Your task to perform on an android device: Open network settings Image 0: 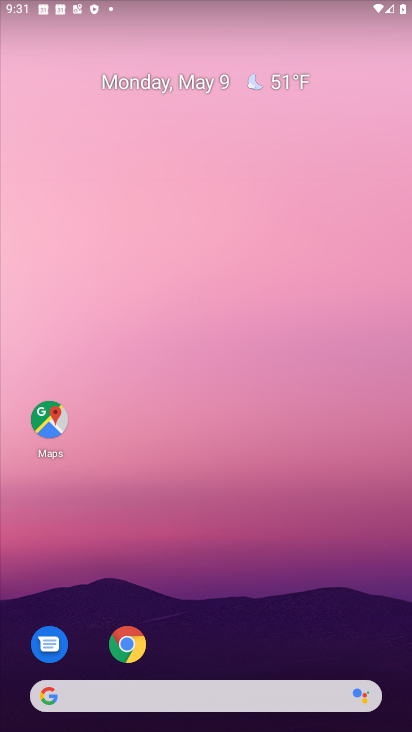
Step 0: drag from (195, 673) to (103, 27)
Your task to perform on an android device: Open network settings Image 1: 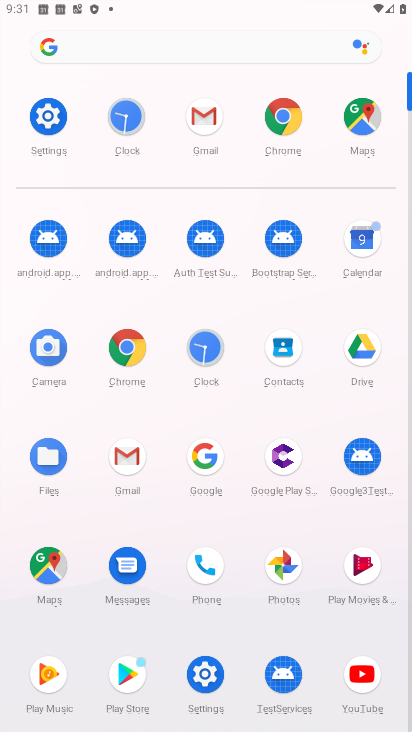
Step 1: click (52, 121)
Your task to perform on an android device: Open network settings Image 2: 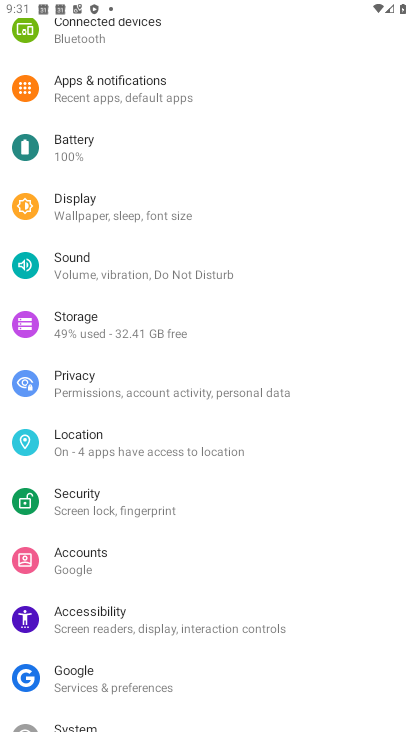
Step 2: drag from (68, 244) to (141, 640)
Your task to perform on an android device: Open network settings Image 3: 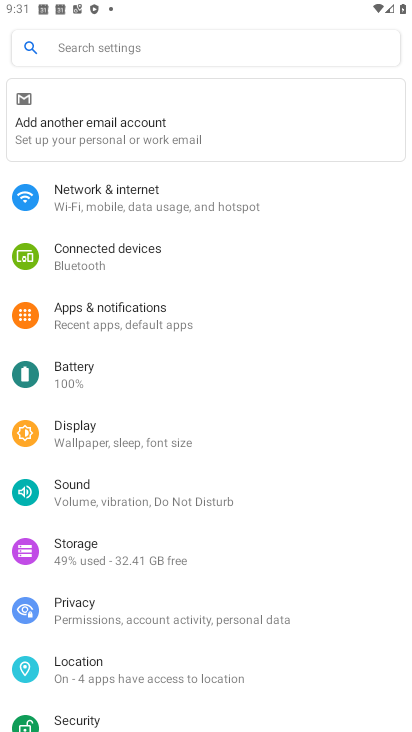
Step 3: click (109, 214)
Your task to perform on an android device: Open network settings Image 4: 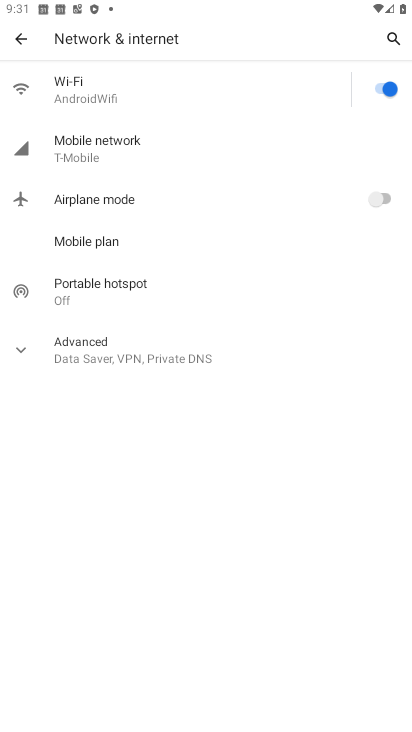
Step 4: click (126, 130)
Your task to perform on an android device: Open network settings Image 5: 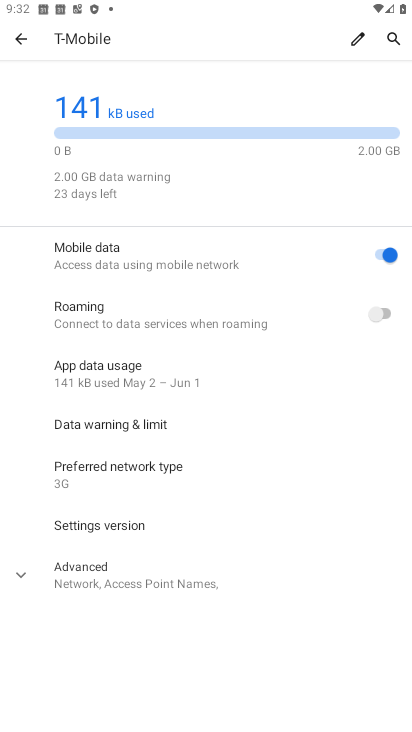
Step 5: task complete